Your task to perform on an android device: add a label to a message in the gmail app Image 0: 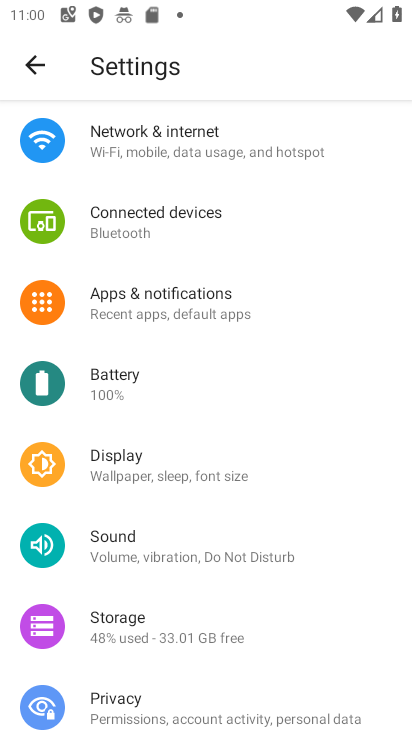
Step 0: press home button
Your task to perform on an android device: add a label to a message in the gmail app Image 1: 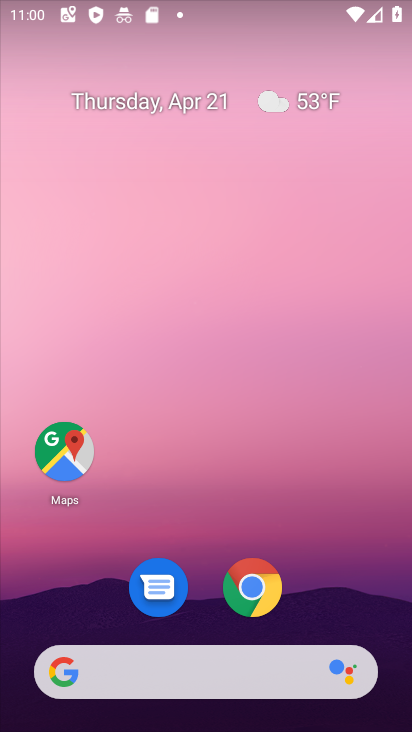
Step 1: drag from (194, 645) to (201, 100)
Your task to perform on an android device: add a label to a message in the gmail app Image 2: 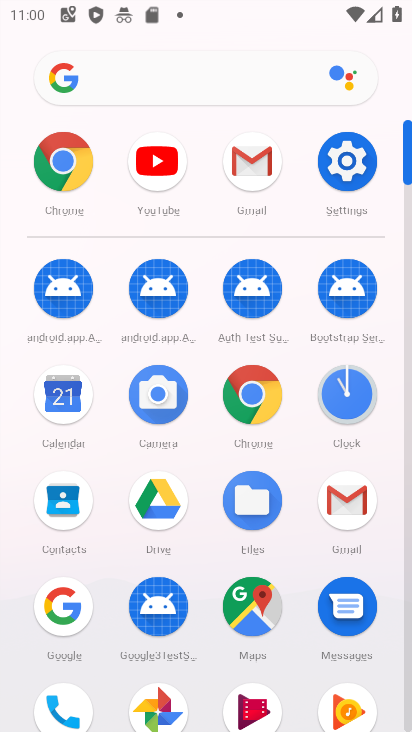
Step 2: click (345, 508)
Your task to perform on an android device: add a label to a message in the gmail app Image 3: 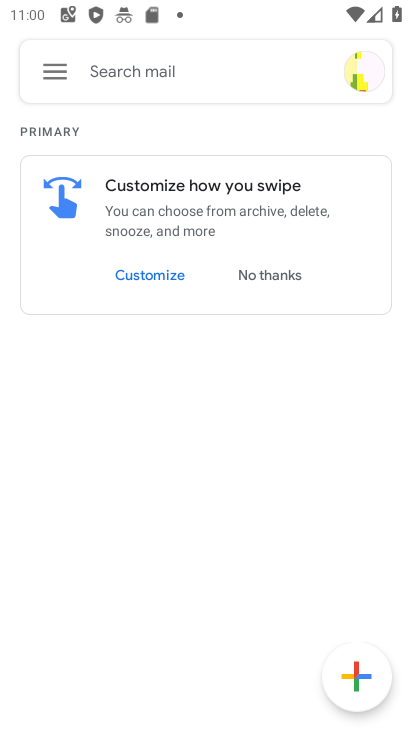
Step 3: click (63, 75)
Your task to perform on an android device: add a label to a message in the gmail app Image 4: 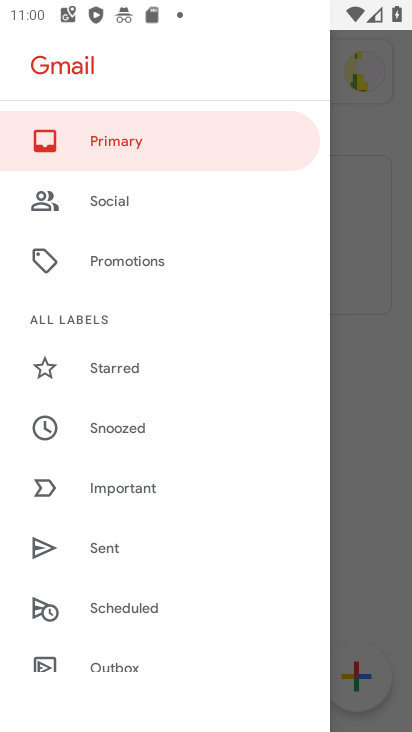
Step 4: drag from (185, 536) to (162, 186)
Your task to perform on an android device: add a label to a message in the gmail app Image 5: 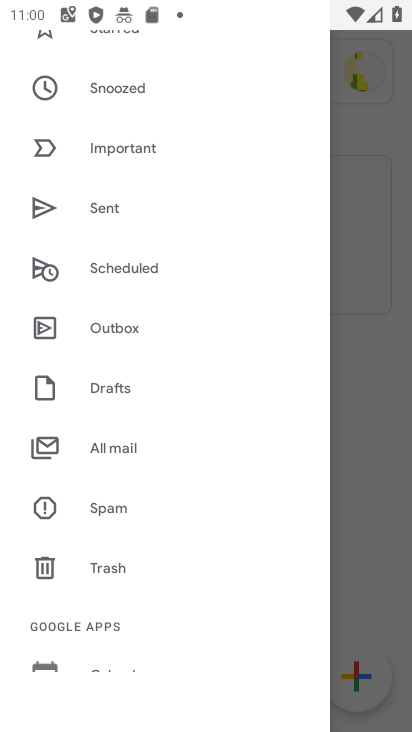
Step 5: click (116, 451)
Your task to perform on an android device: add a label to a message in the gmail app Image 6: 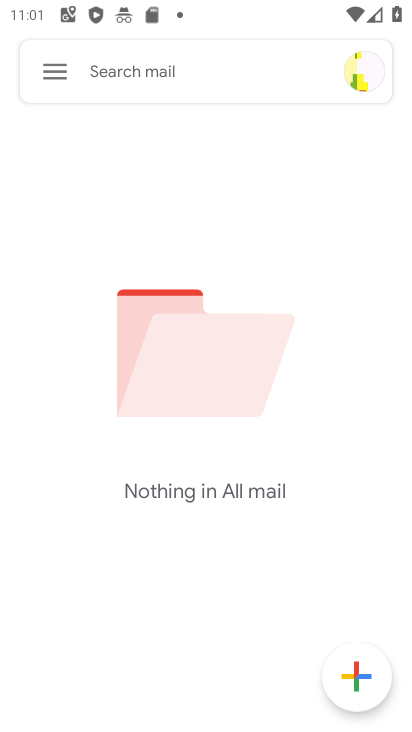
Step 6: task complete